Your task to perform on an android device: turn on bluetooth scan Image 0: 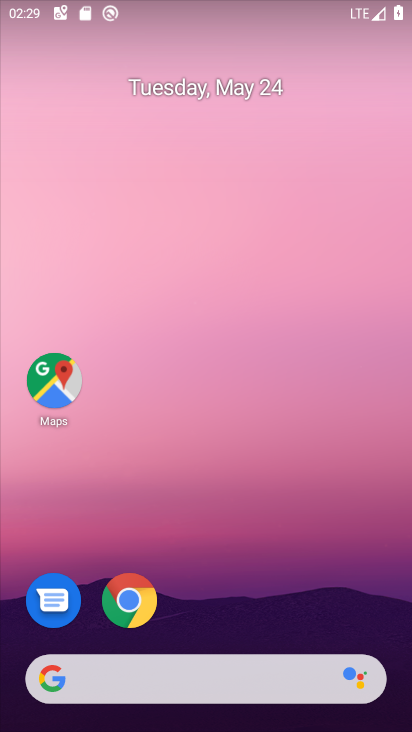
Step 0: drag from (198, 438) to (201, 170)
Your task to perform on an android device: turn on bluetooth scan Image 1: 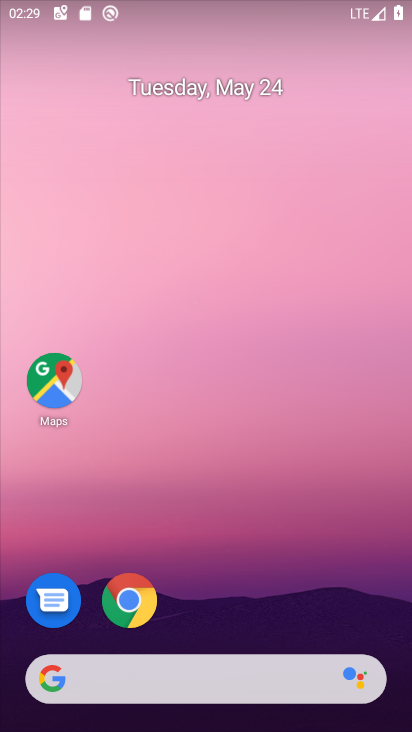
Step 1: drag from (224, 581) to (131, 323)
Your task to perform on an android device: turn on bluetooth scan Image 2: 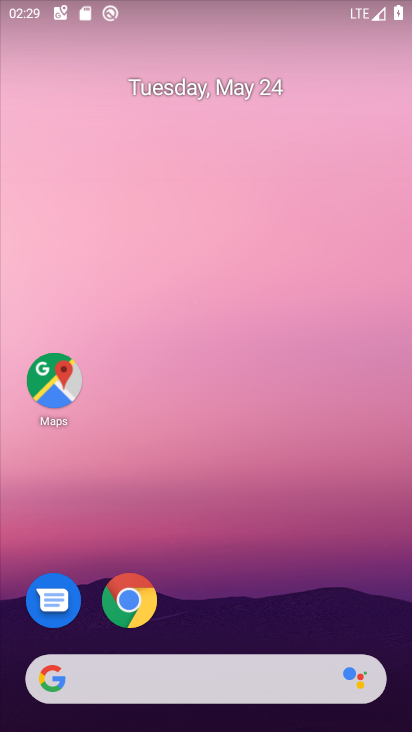
Step 2: drag from (288, 530) to (298, 148)
Your task to perform on an android device: turn on bluetooth scan Image 3: 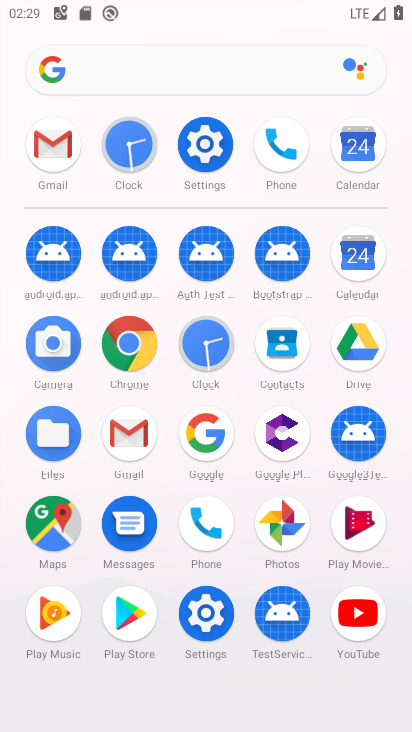
Step 3: click (206, 127)
Your task to perform on an android device: turn on bluetooth scan Image 4: 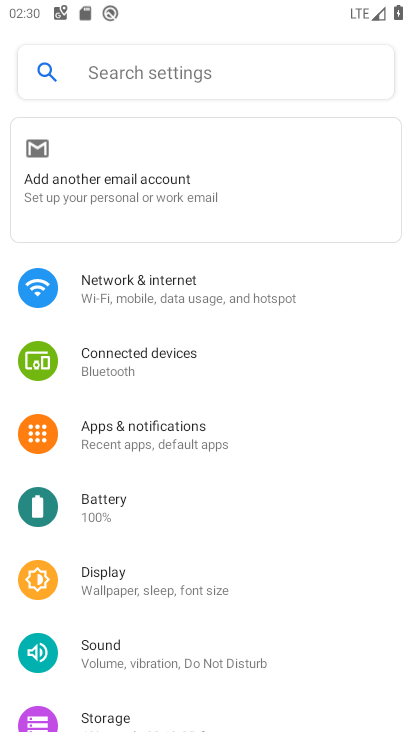
Step 4: drag from (226, 560) to (206, 274)
Your task to perform on an android device: turn on bluetooth scan Image 5: 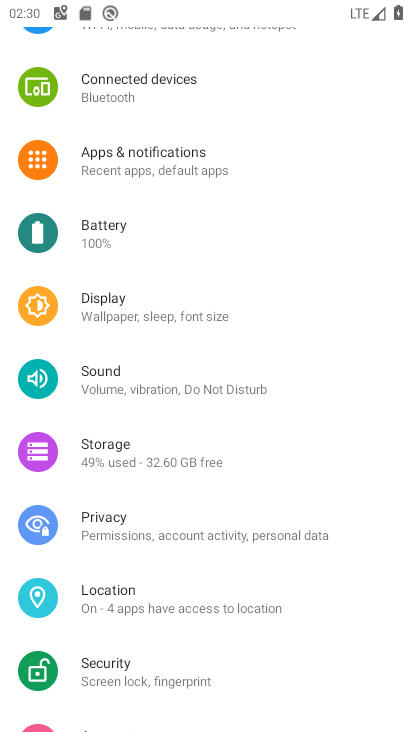
Step 5: drag from (182, 621) to (136, 393)
Your task to perform on an android device: turn on bluetooth scan Image 6: 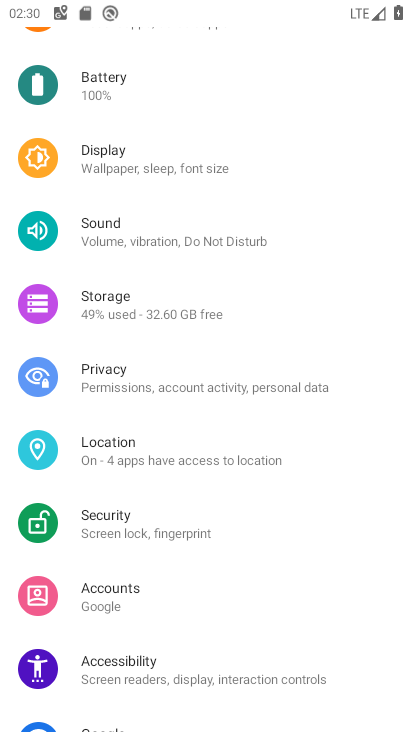
Step 6: drag from (214, 310) to (290, 661)
Your task to perform on an android device: turn on bluetooth scan Image 7: 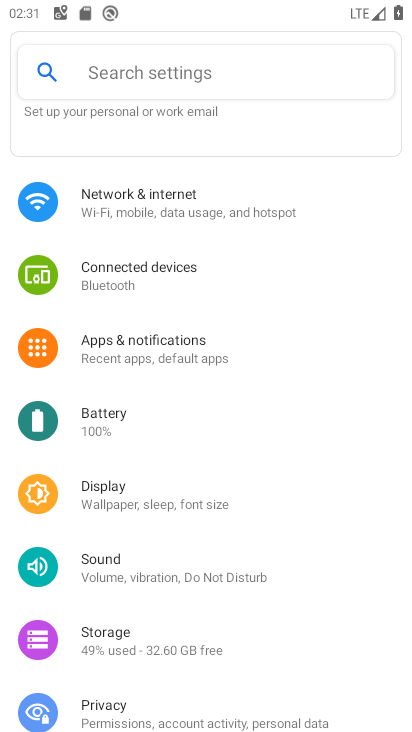
Step 7: click (225, 209)
Your task to perform on an android device: turn on bluetooth scan Image 8: 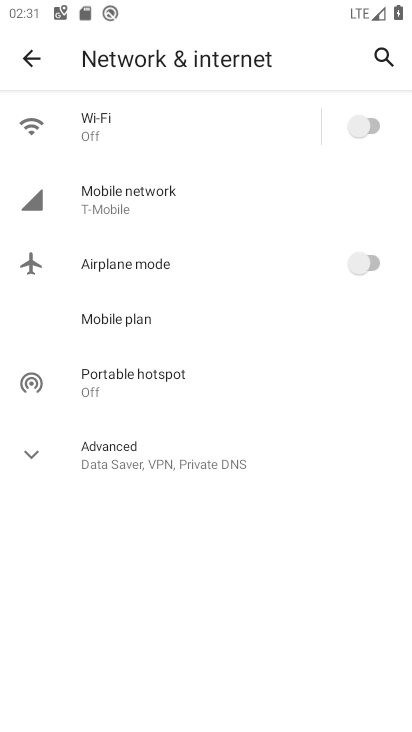
Step 8: task complete